Your task to perform on an android device: What's the weather today? Image 0: 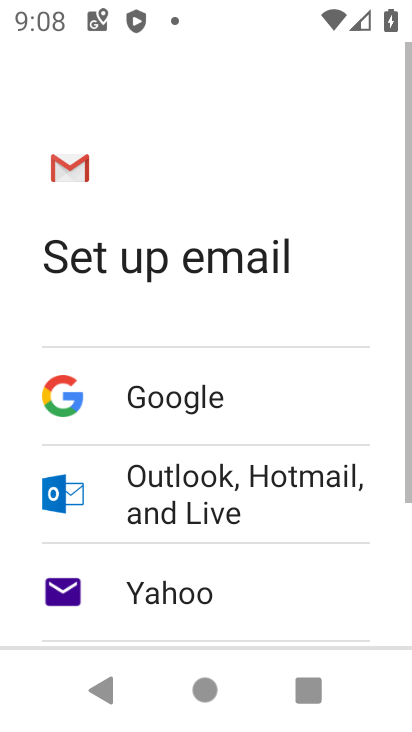
Step 0: press home button
Your task to perform on an android device: What's the weather today? Image 1: 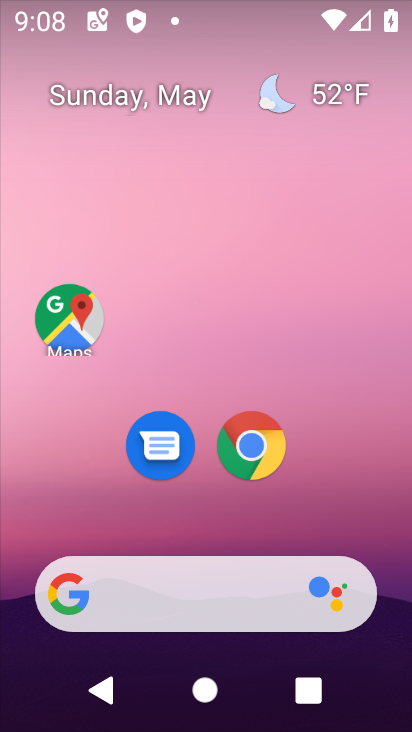
Step 1: click (313, 97)
Your task to perform on an android device: What's the weather today? Image 2: 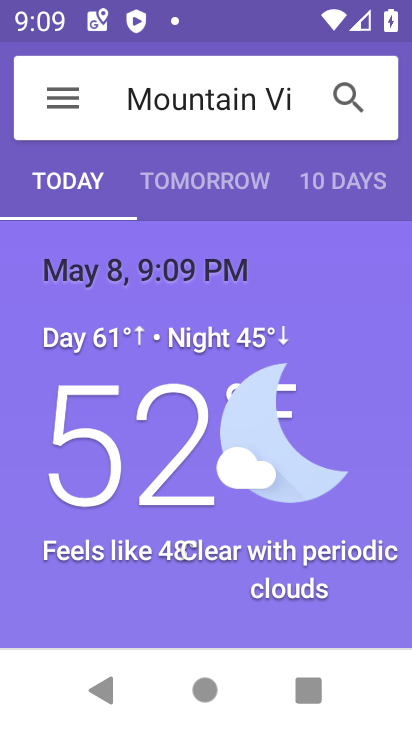
Step 2: task complete